Your task to perform on an android device: turn off notifications in google photos Image 0: 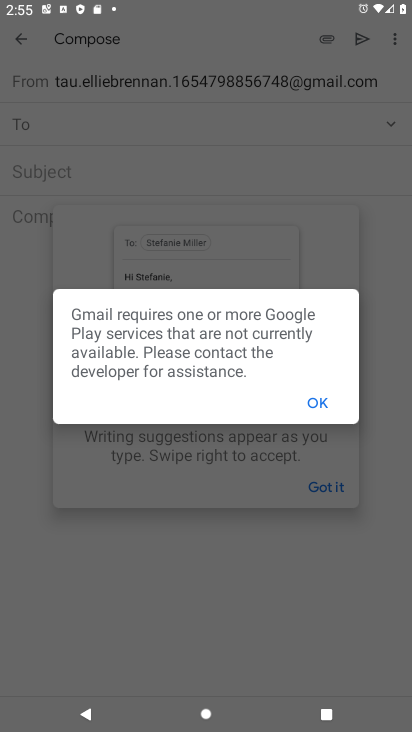
Step 0: press home button
Your task to perform on an android device: turn off notifications in google photos Image 1: 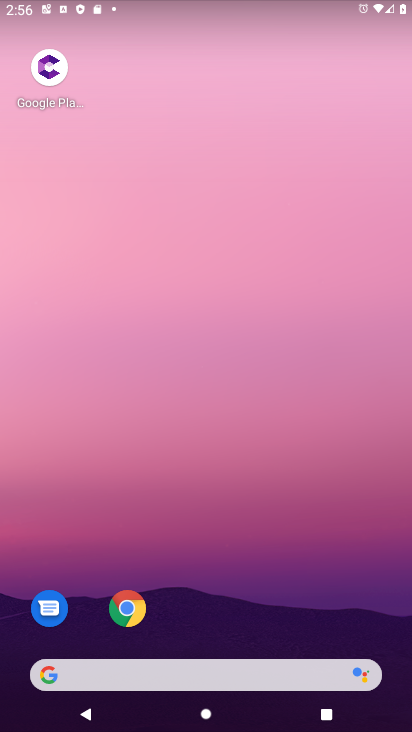
Step 1: drag from (378, 598) to (332, 105)
Your task to perform on an android device: turn off notifications in google photos Image 2: 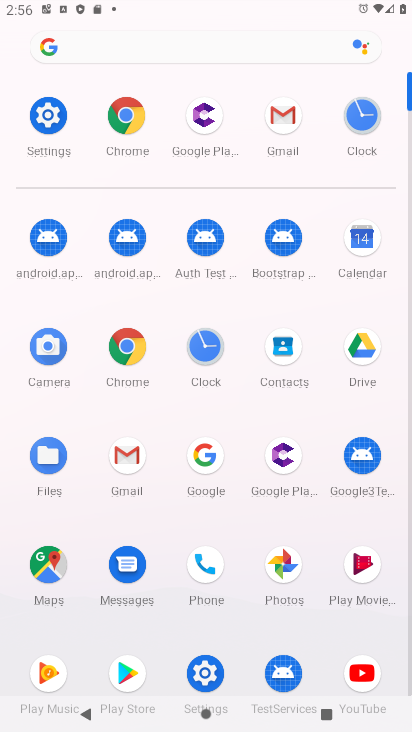
Step 2: click (283, 564)
Your task to perform on an android device: turn off notifications in google photos Image 3: 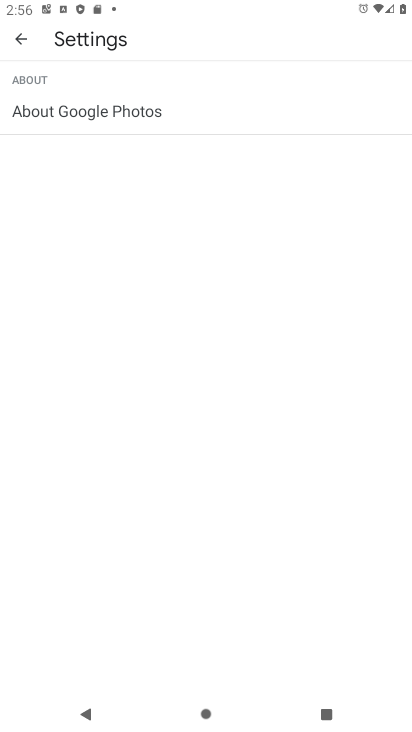
Step 3: press back button
Your task to perform on an android device: turn off notifications in google photos Image 4: 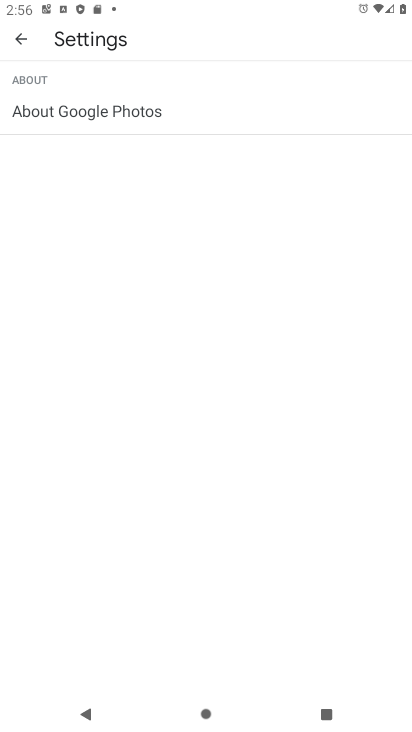
Step 4: press back button
Your task to perform on an android device: turn off notifications in google photos Image 5: 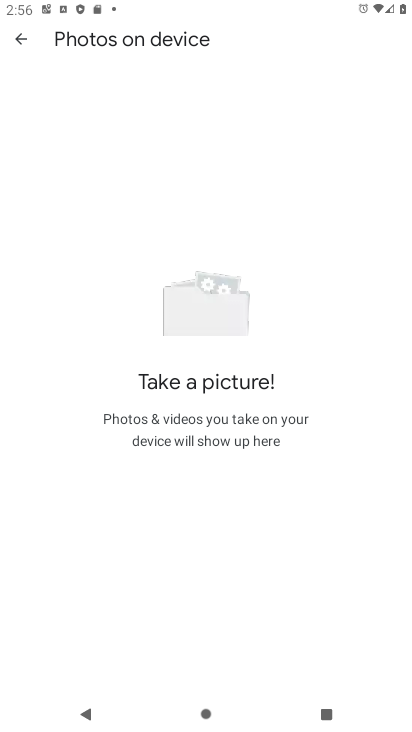
Step 5: press back button
Your task to perform on an android device: turn off notifications in google photos Image 6: 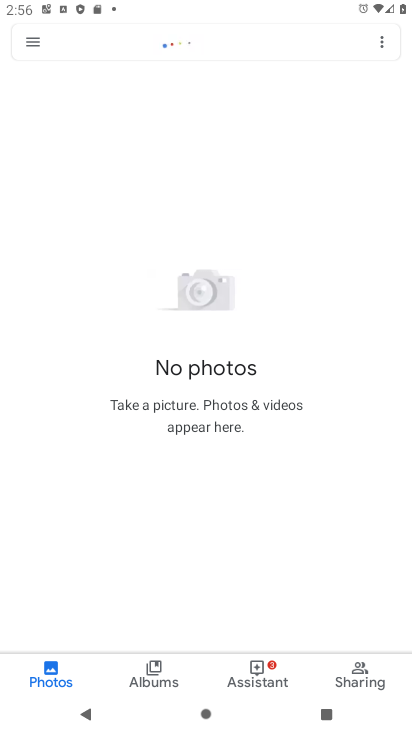
Step 6: click (32, 41)
Your task to perform on an android device: turn off notifications in google photos Image 7: 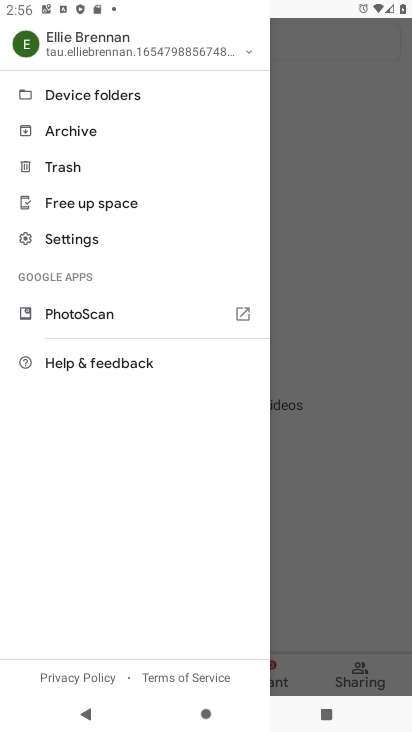
Step 7: click (70, 237)
Your task to perform on an android device: turn off notifications in google photos Image 8: 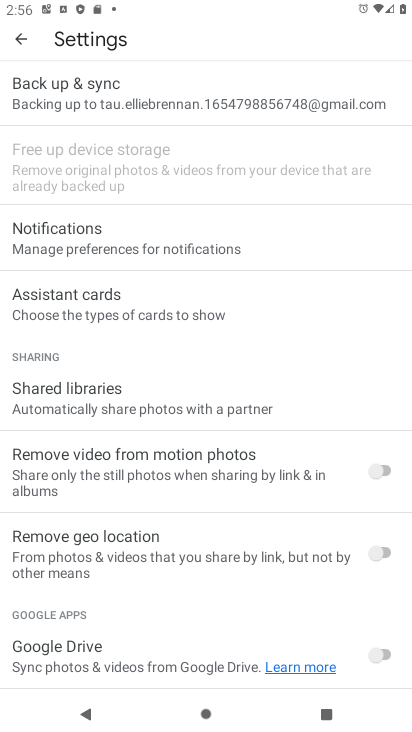
Step 8: click (77, 245)
Your task to perform on an android device: turn off notifications in google photos Image 9: 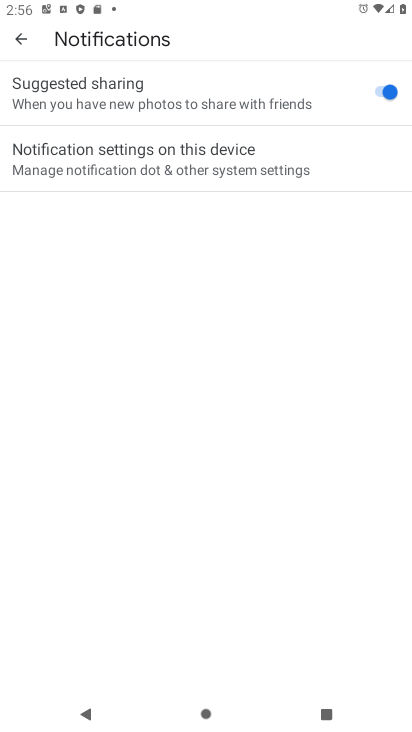
Step 9: click (91, 161)
Your task to perform on an android device: turn off notifications in google photos Image 10: 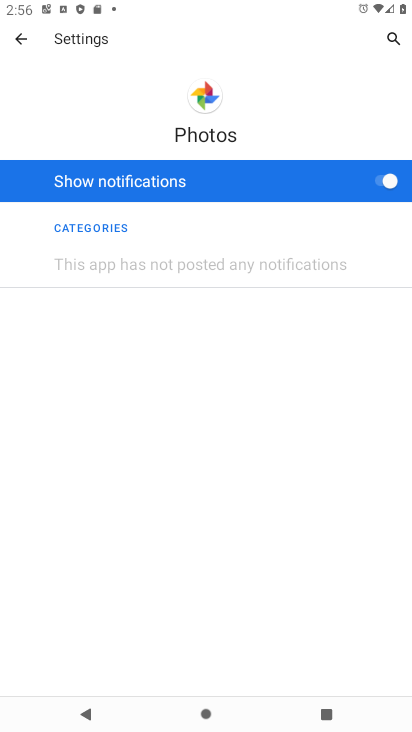
Step 10: click (375, 184)
Your task to perform on an android device: turn off notifications in google photos Image 11: 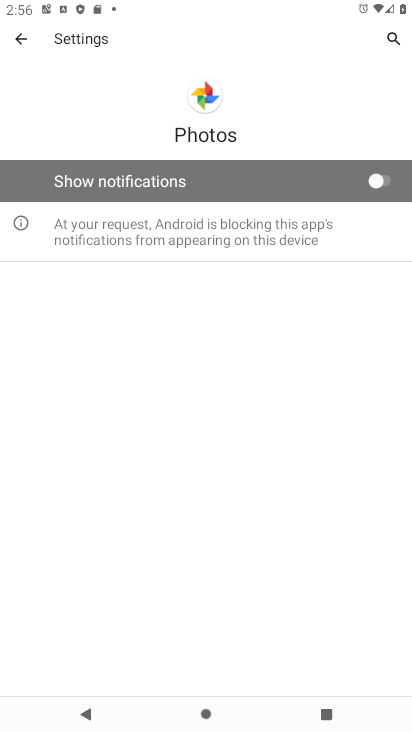
Step 11: task complete